Your task to perform on an android device: Open the calendar app, open the side menu, and click the "Day" option Image 0: 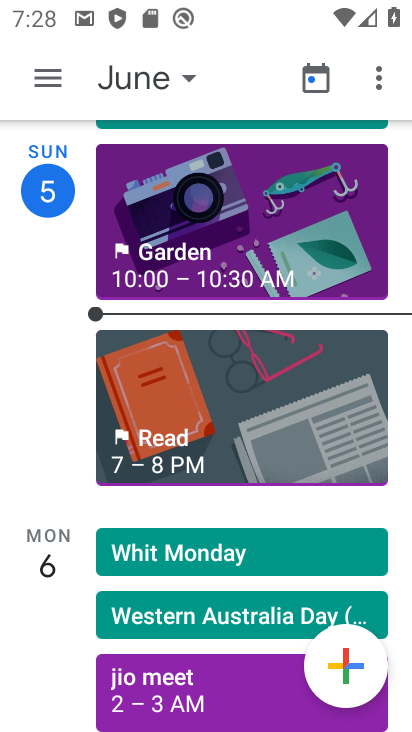
Step 0: press home button
Your task to perform on an android device: Open the calendar app, open the side menu, and click the "Day" option Image 1: 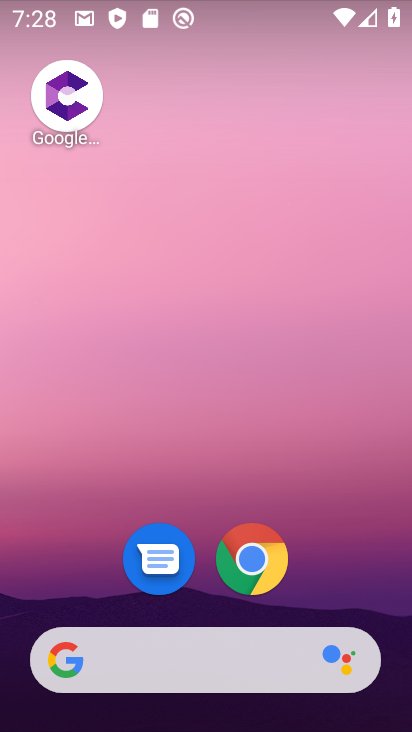
Step 1: drag from (332, 549) to (234, 77)
Your task to perform on an android device: Open the calendar app, open the side menu, and click the "Day" option Image 2: 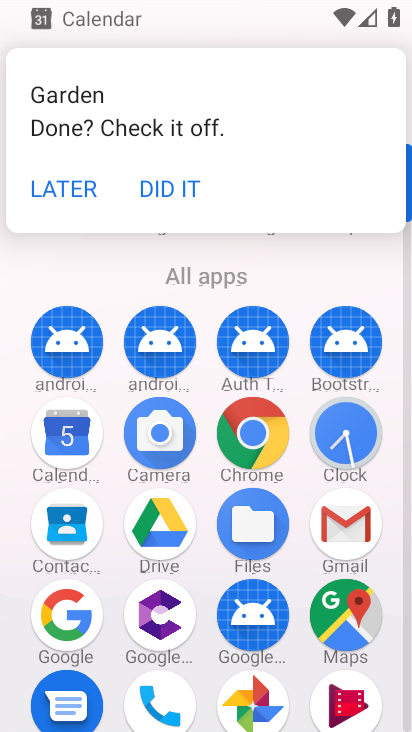
Step 2: click (69, 434)
Your task to perform on an android device: Open the calendar app, open the side menu, and click the "Day" option Image 3: 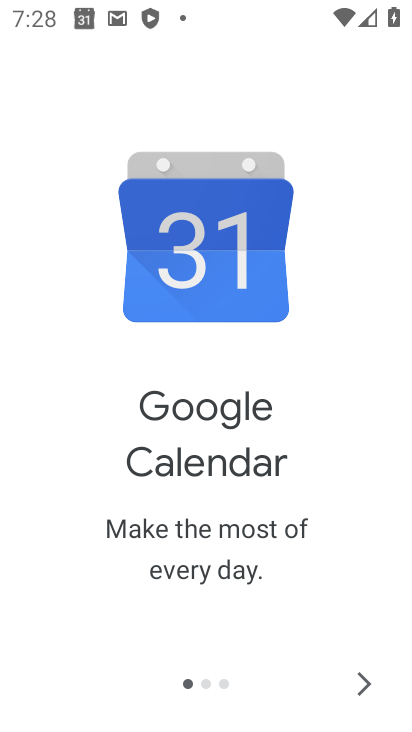
Step 3: click (367, 685)
Your task to perform on an android device: Open the calendar app, open the side menu, and click the "Day" option Image 4: 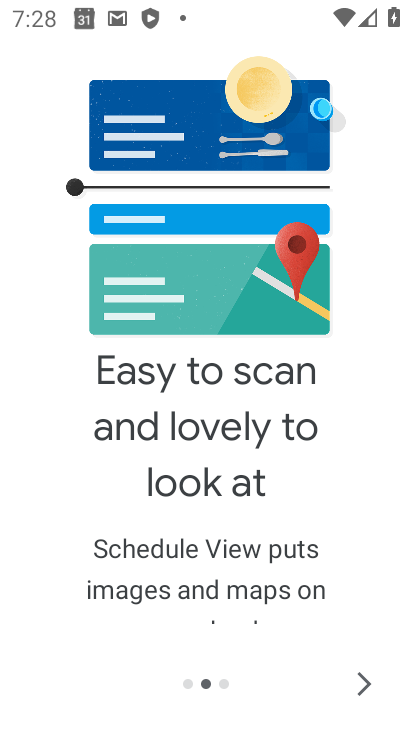
Step 4: click (367, 685)
Your task to perform on an android device: Open the calendar app, open the side menu, and click the "Day" option Image 5: 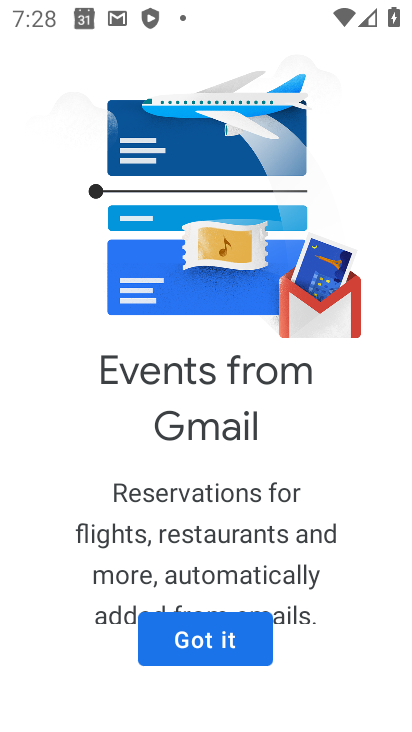
Step 5: click (212, 638)
Your task to perform on an android device: Open the calendar app, open the side menu, and click the "Day" option Image 6: 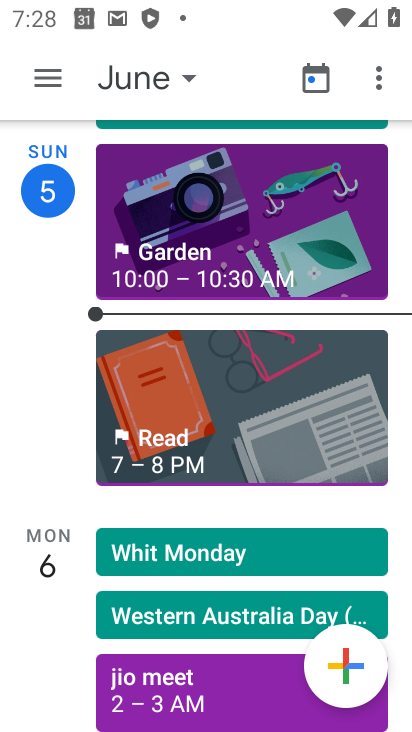
Step 6: click (41, 81)
Your task to perform on an android device: Open the calendar app, open the side menu, and click the "Day" option Image 7: 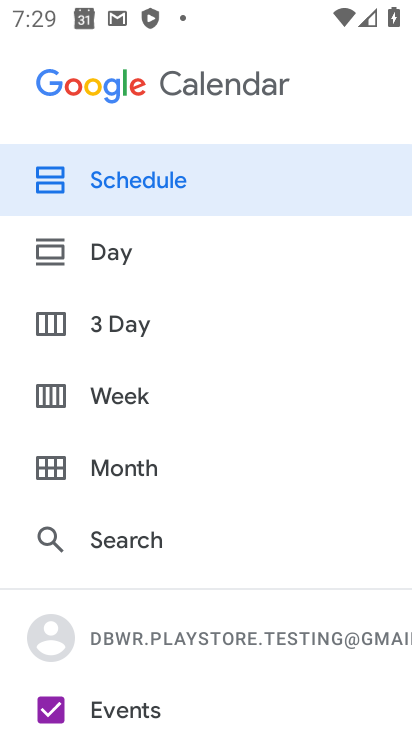
Step 7: click (105, 258)
Your task to perform on an android device: Open the calendar app, open the side menu, and click the "Day" option Image 8: 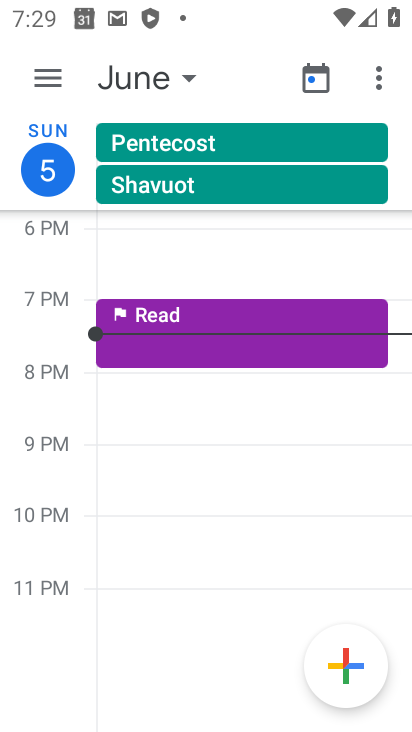
Step 8: task complete